Your task to perform on an android device: Open Google Chrome Image 0: 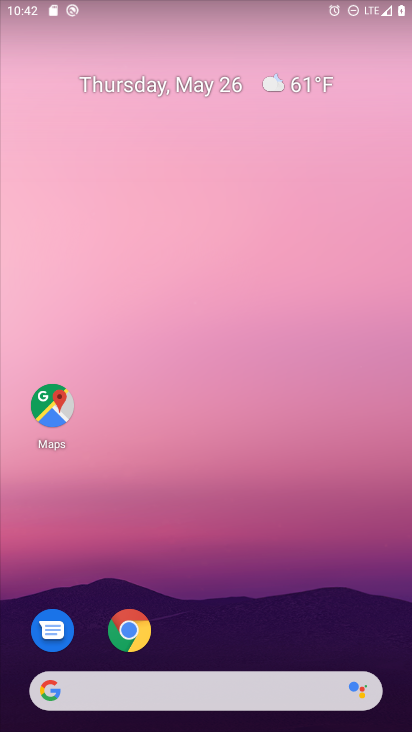
Step 0: click (148, 623)
Your task to perform on an android device: Open Google Chrome Image 1: 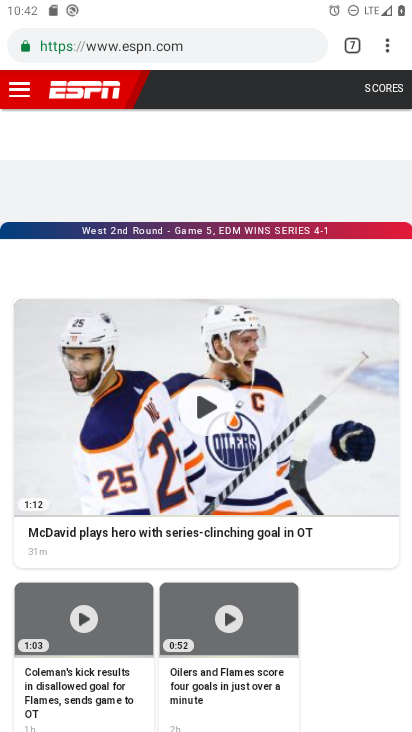
Step 1: task complete